Your task to perform on an android device: Go to battery settings Image 0: 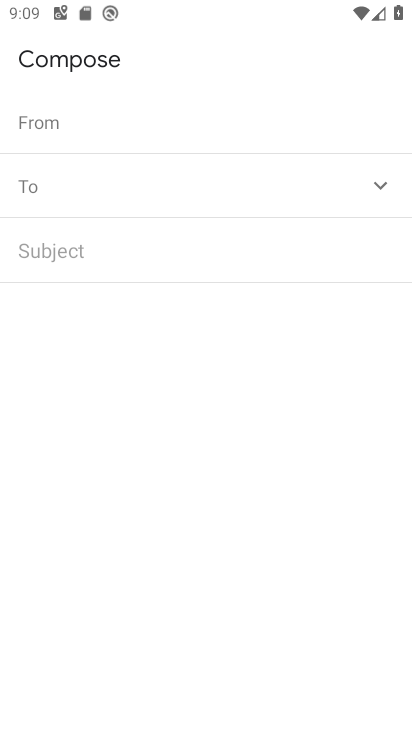
Step 0: drag from (205, 727) to (189, 66)
Your task to perform on an android device: Go to battery settings Image 1: 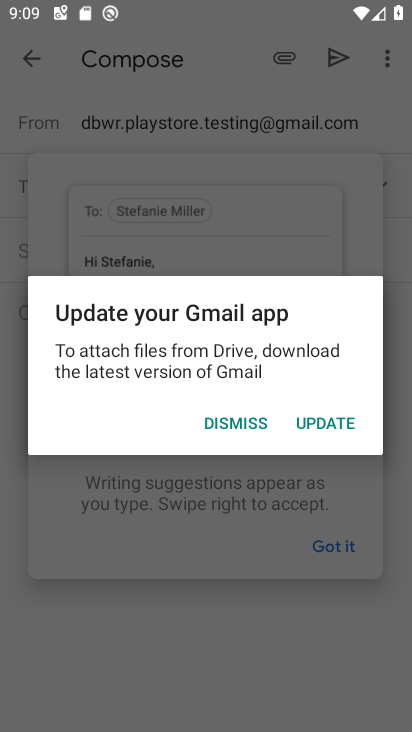
Step 1: press home button
Your task to perform on an android device: Go to battery settings Image 2: 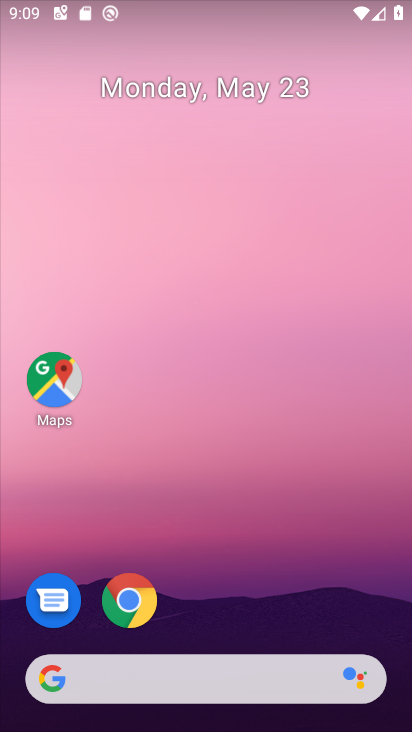
Step 2: drag from (215, 726) to (180, 132)
Your task to perform on an android device: Go to battery settings Image 3: 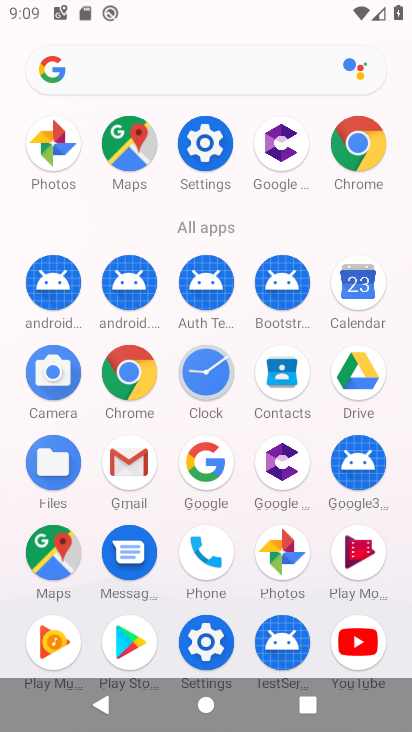
Step 3: click (198, 153)
Your task to perform on an android device: Go to battery settings Image 4: 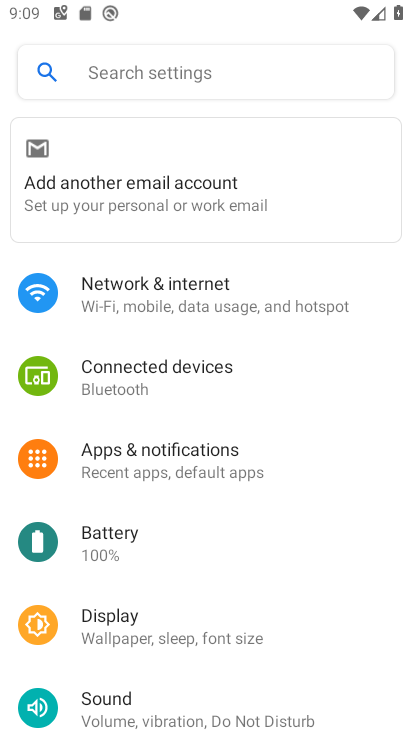
Step 4: click (108, 541)
Your task to perform on an android device: Go to battery settings Image 5: 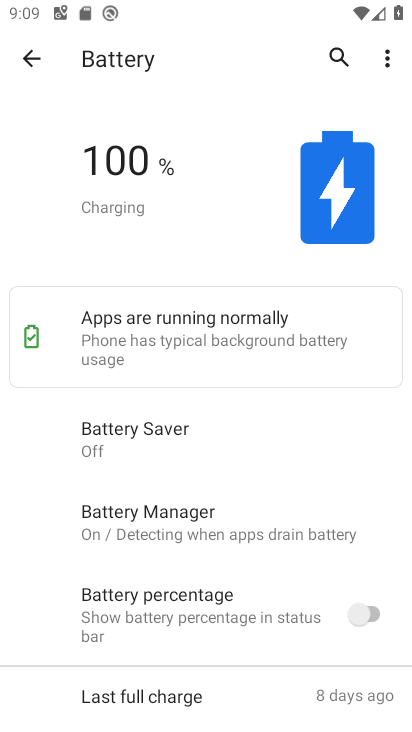
Step 5: task complete